Your task to perform on an android device: Open the calendar and show me this week's events? Image 0: 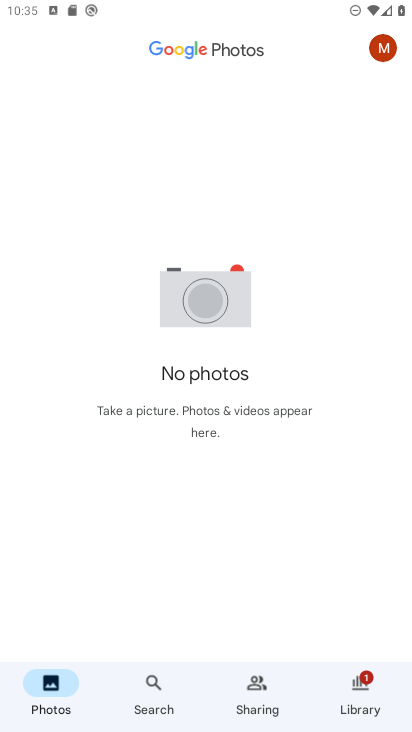
Step 0: press home button
Your task to perform on an android device: Open the calendar and show me this week's events? Image 1: 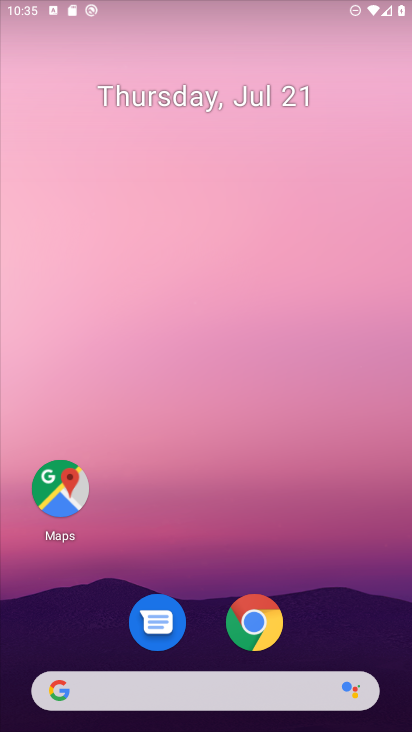
Step 1: drag from (225, 641) to (172, 80)
Your task to perform on an android device: Open the calendar and show me this week's events? Image 2: 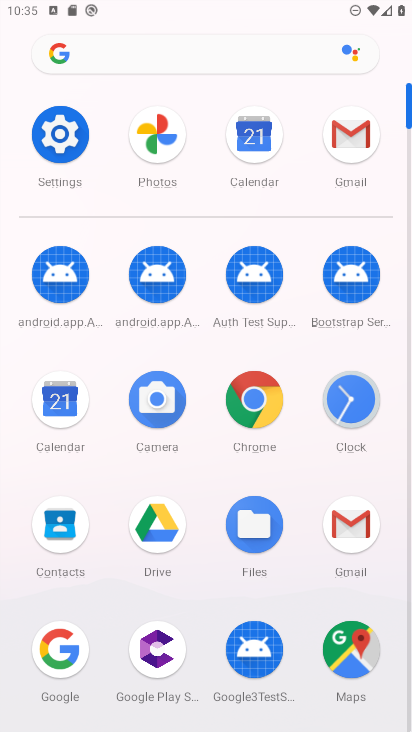
Step 2: click (63, 403)
Your task to perform on an android device: Open the calendar and show me this week's events? Image 3: 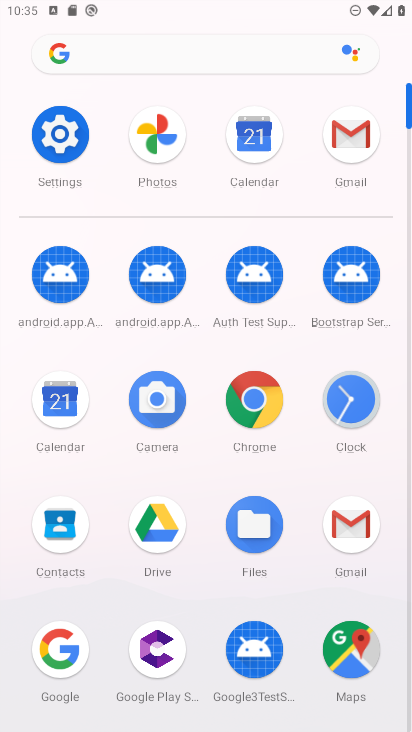
Step 3: click (63, 403)
Your task to perform on an android device: Open the calendar and show me this week's events? Image 4: 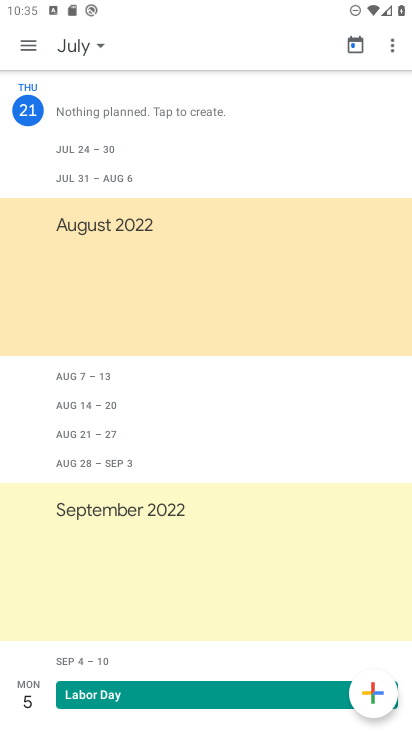
Step 4: click (76, 43)
Your task to perform on an android device: Open the calendar and show me this week's events? Image 5: 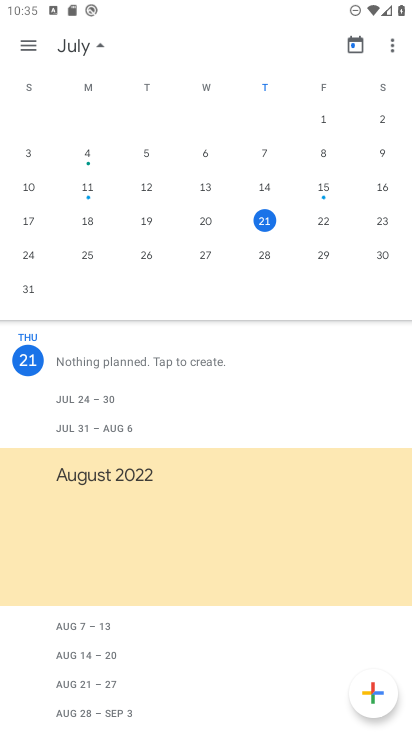
Step 5: click (337, 220)
Your task to perform on an android device: Open the calendar and show me this week's events? Image 6: 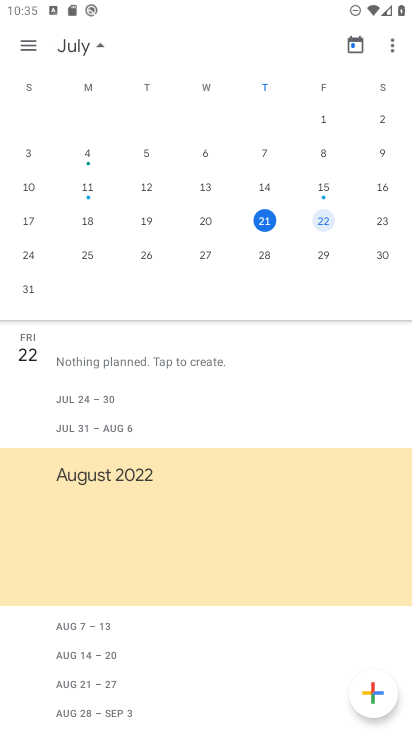
Step 6: task complete